Your task to perform on an android device: turn off improve location accuracy Image 0: 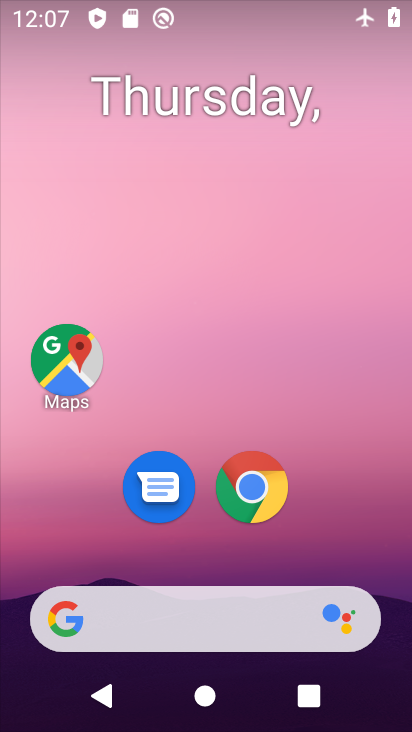
Step 0: drag from (362, 537) to (304, 86)
Your task to perform on an android device: turn off improve location accuracy Image 1: 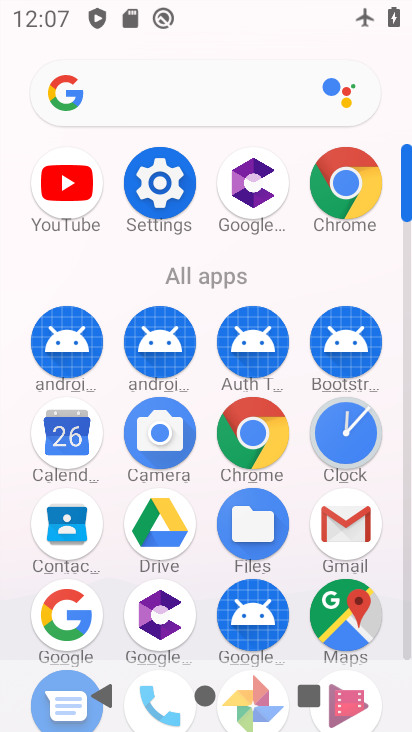
Step 1: click (162, 172)
Your task to perform on an android device: turn off improve location accuracy Image 2: 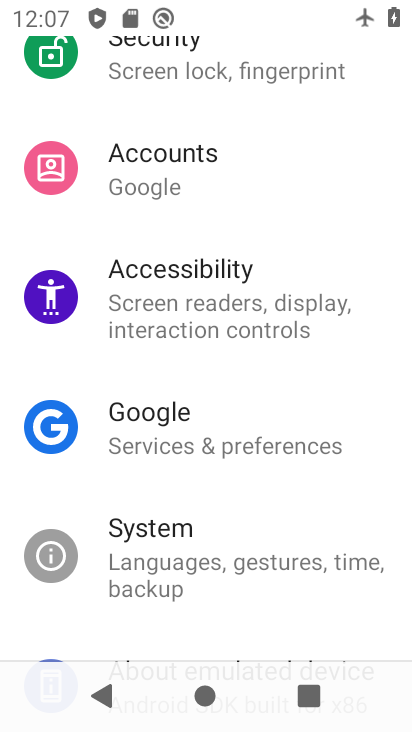
Step 2: drag from (259, 182) to (270, 722)
Your task to perform on an android device: turn off improve location accuracy Image 3: 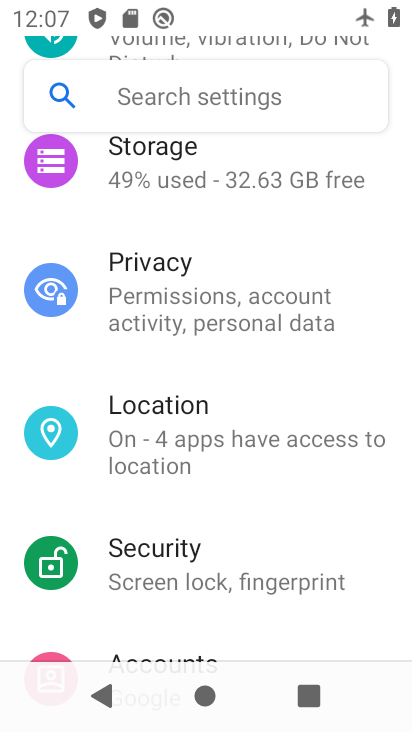
Step 3: click (172, 423)
Your task to perform on an android device: turn off improve location accuracy Image 4: 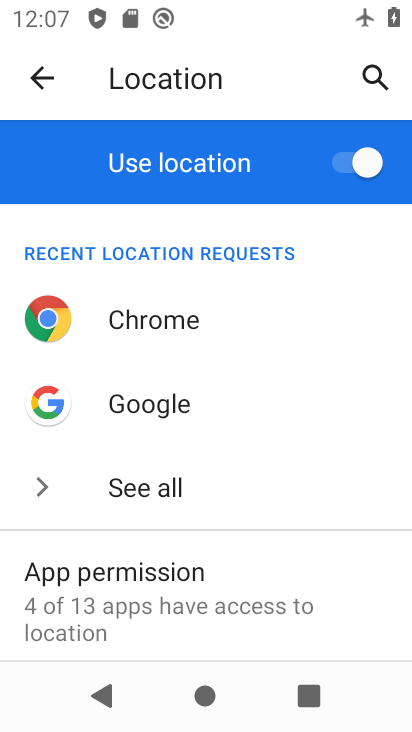
Step 4: drag from (256, 510) to (328, 223)
Your task to perform on an android device: turn off improve location accuracy Image 5: 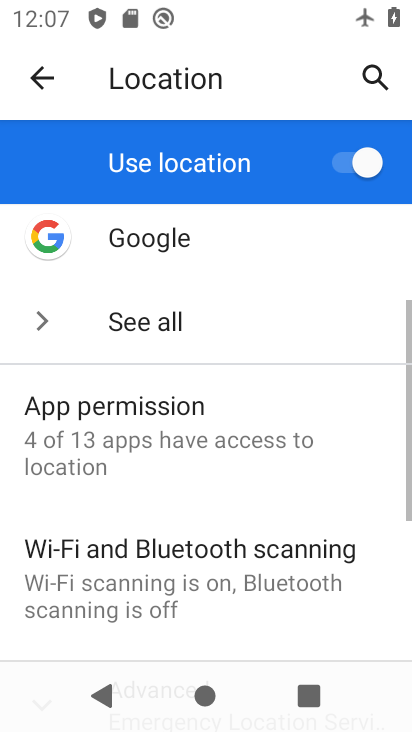
Step 5: drag from (251, 586) to (260, 232)
Your task to perform on an android device: turn off improve location accuracy Image 6: 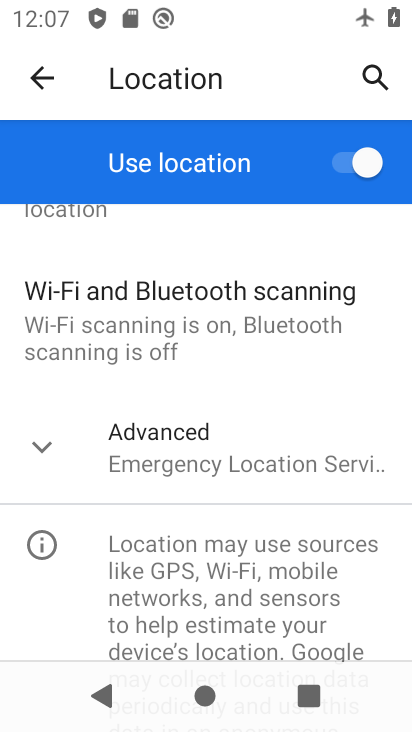
Step 6: click (222, 449)
Your task to perform on an android device: turn off improve location accuracy Image 7: 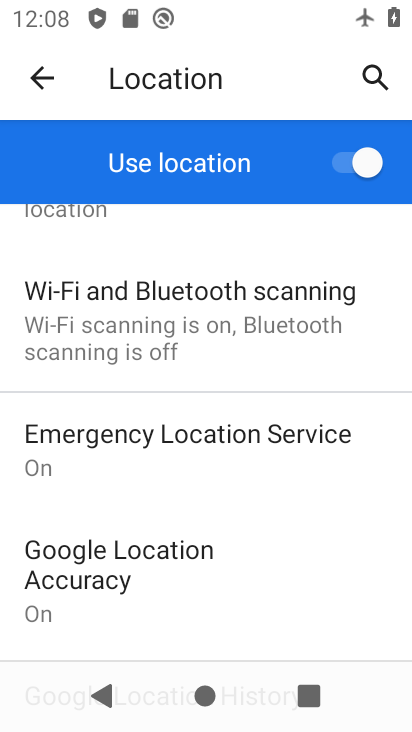
Step 7: click (154, 563)
Your task to perform on an android device: turn off improve location accuracy Image 8: 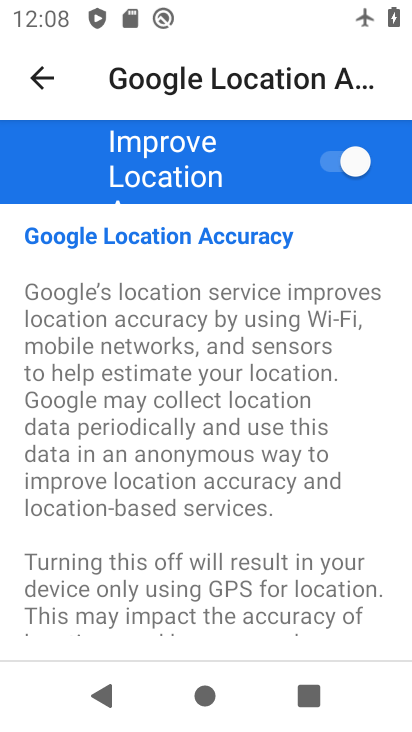
Step 8: click (259, 160)
Your task to perform on an android device: turn off improve location accuracy Image 9: 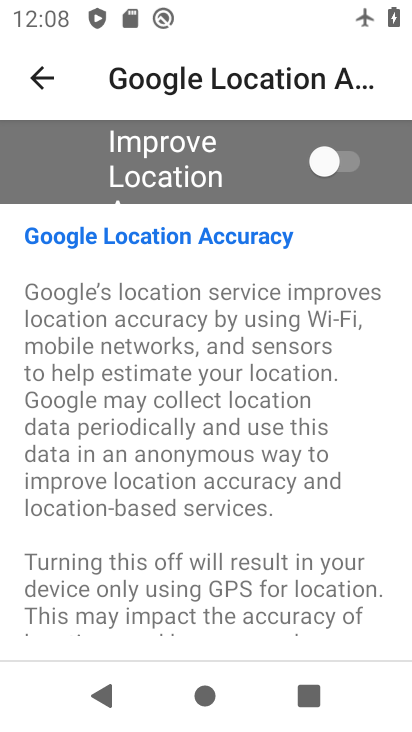
Step 9: task complete